Your task to perform on an android device: Open the stopwatch Image 0: 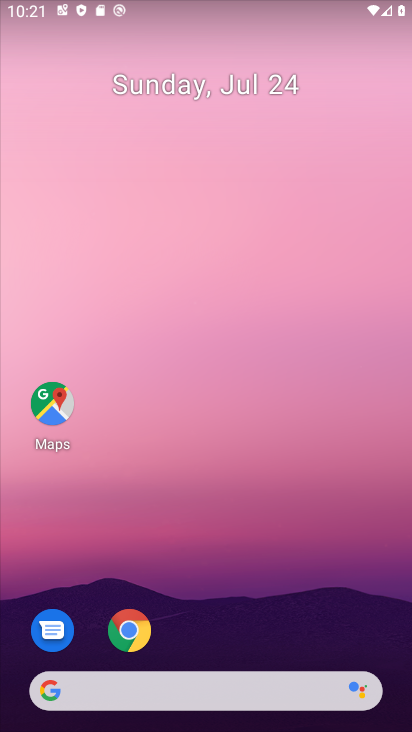
Step 0: drag from (231, 658) to (257, 280)
Your task to perform on an android device: Open the stopwatch Image 1: 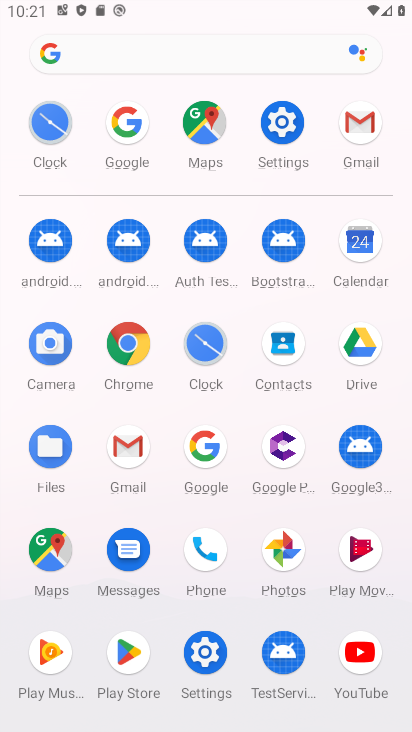
Step 1: click (216, 336)
Your task to perform on an android device: Open the stopwatch Image 2: 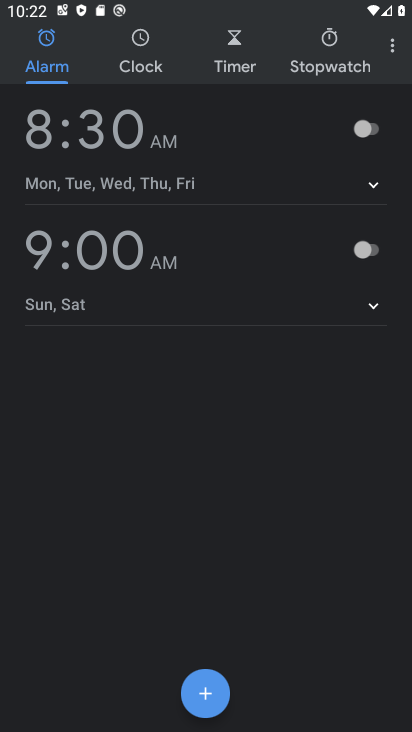
Step 2: click (309, 49)
Your task to perform on an android device: Open the stopwatch Image 3: 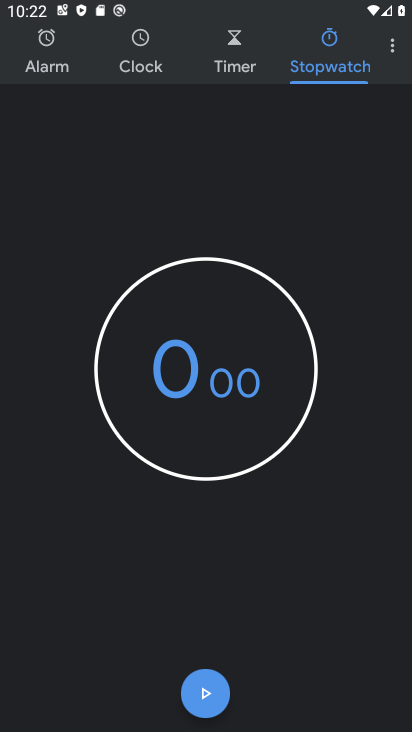
Step 3: task complete